Your task to perform on an android device: toggle airplane mode Image 0: 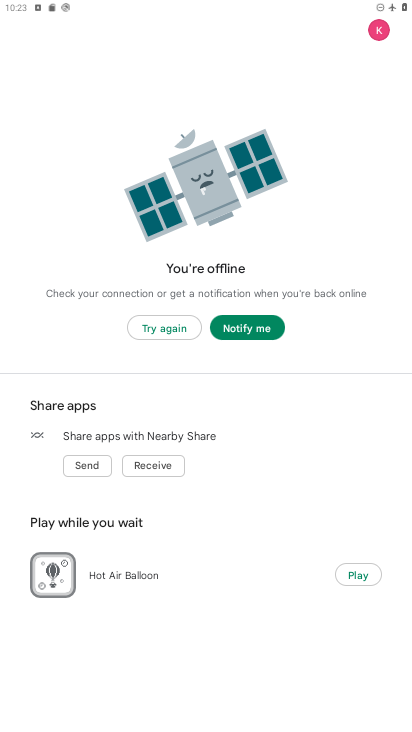
Step 0: press home button
Your task to perform on an android device: toggle airplane mode Image 1: 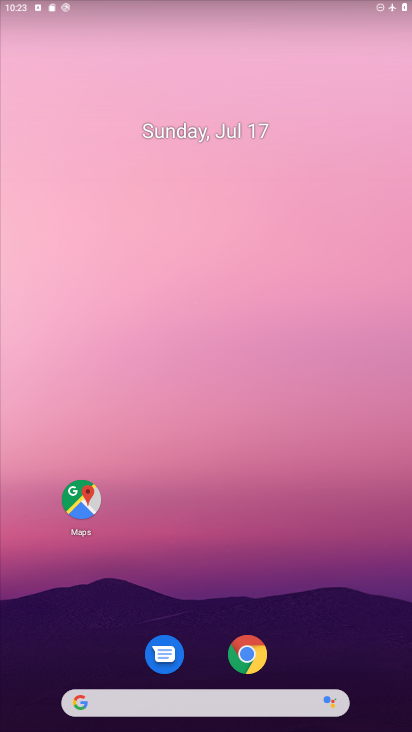
Step 1: drag from (221, 560) to (206, 18)
Your task to perform on an android device: toggle airplane mode Image 2: 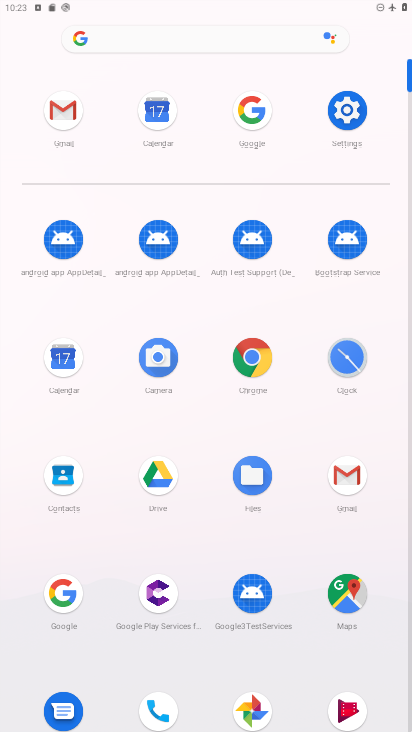
Step 2: click (337, 130)
Your task to perform on an android device: toggle airplane mode Image 3: 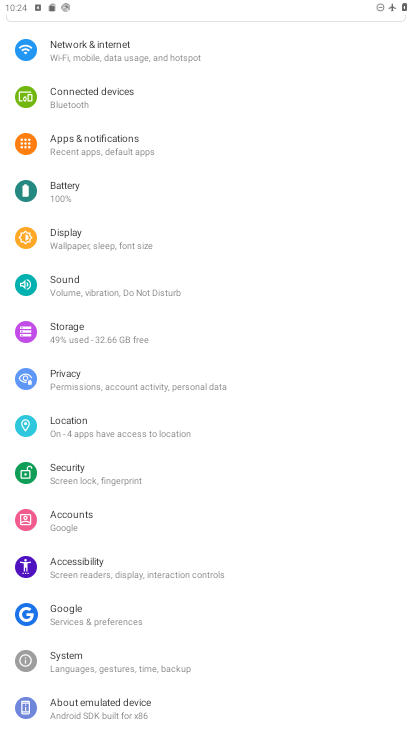
Step 3: click (108, 60)
Your task to perform on an android device: toggle airplane mode Image 4: 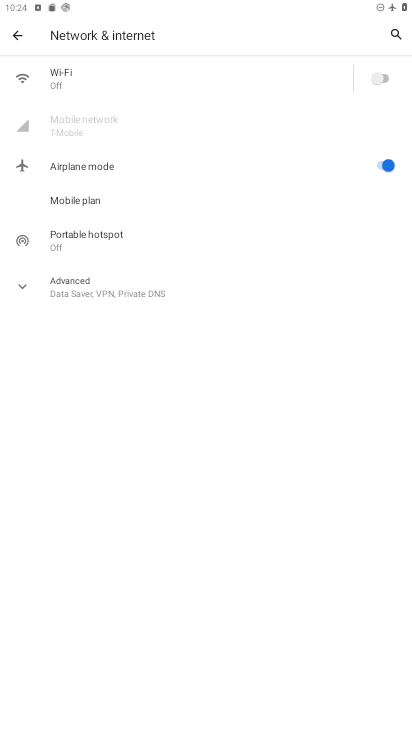
Step 4: click (383, 170)
Your task to perform on an android device: toggle airplane mode Image 5: 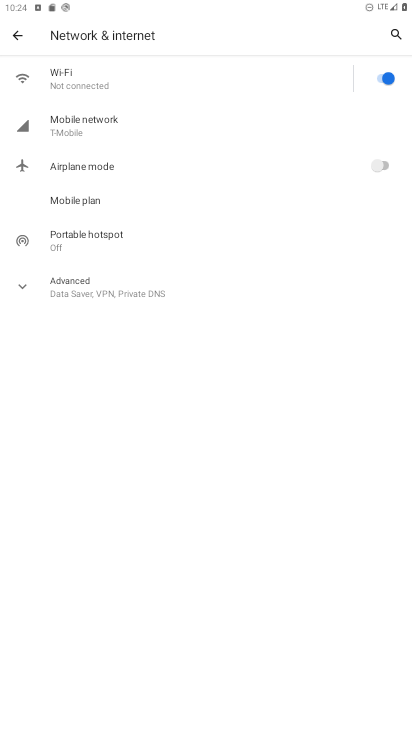
Step 5: task complete